Your task to perform on an android device: empty trash in the gmail app Image 0: 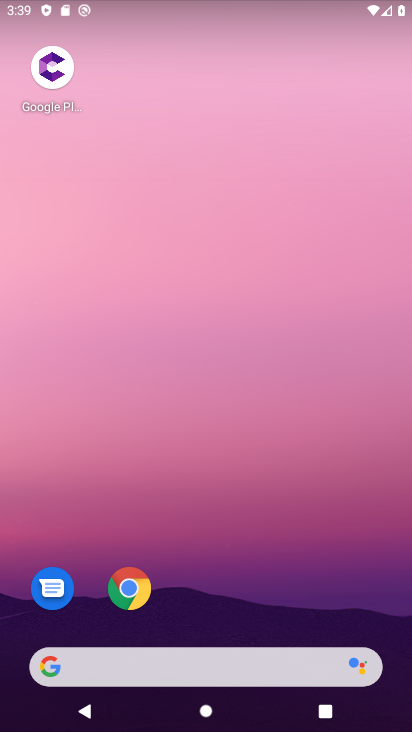
Step 0: drag from (281, 677) to (255, 150)
Your task to perform on an android device: empty trash in the gmail app Image 1: 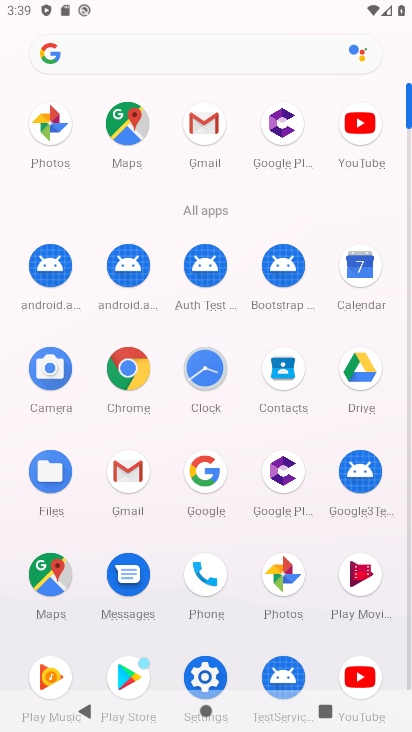
Step 1: click (205, 139)
Your task to perform on an android device: empty trash in the gmail app Image 2: 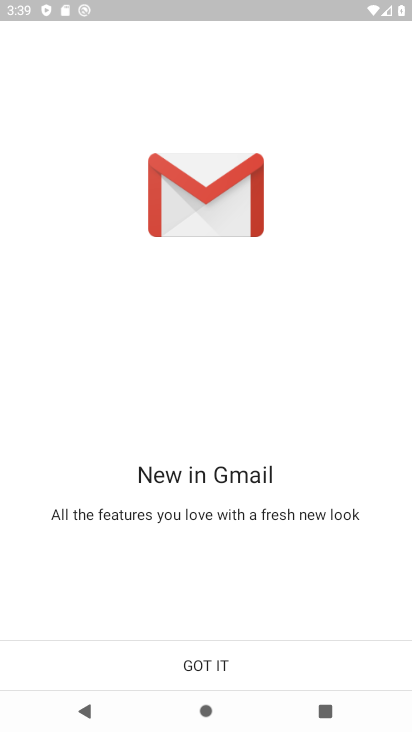
Step 2: click (220, 659)
Your task to perform on an android device: empty trash in the gmail app Image 3: 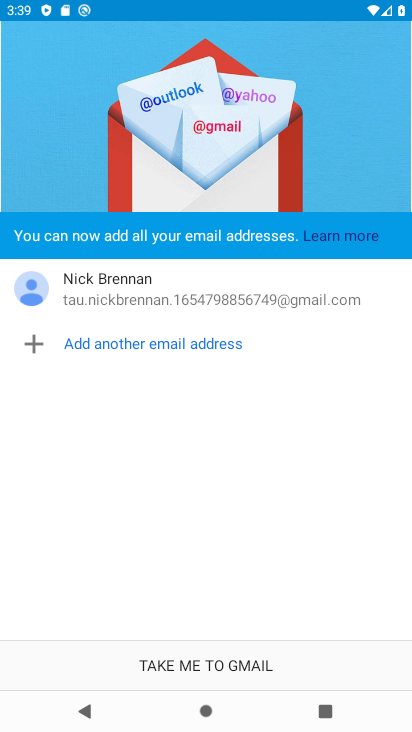
Step 3: click (194, 675)
Your task to perform on an android device: empty trash in the gmail app Image 4: 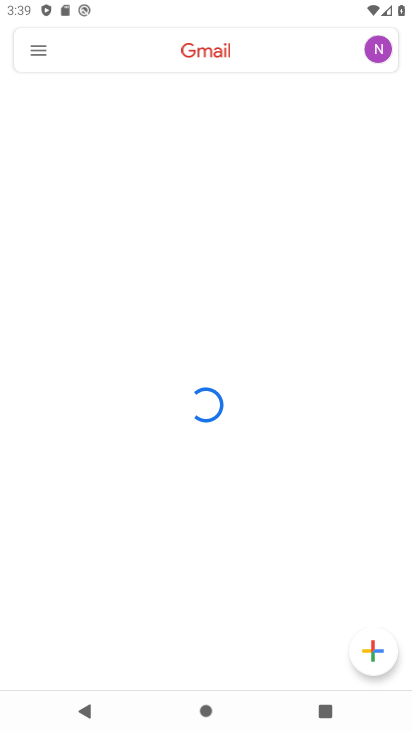
Step 4: click (46, 49)
Your task to perform on an android device: empty trash in the gmail app Image 5: 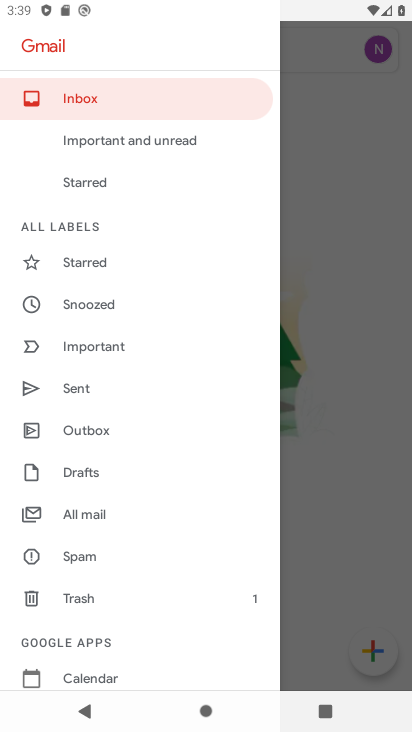
Step 5: click (105, 596)
Your task to perform on an android device: empty trash in the gmail app Image 6: 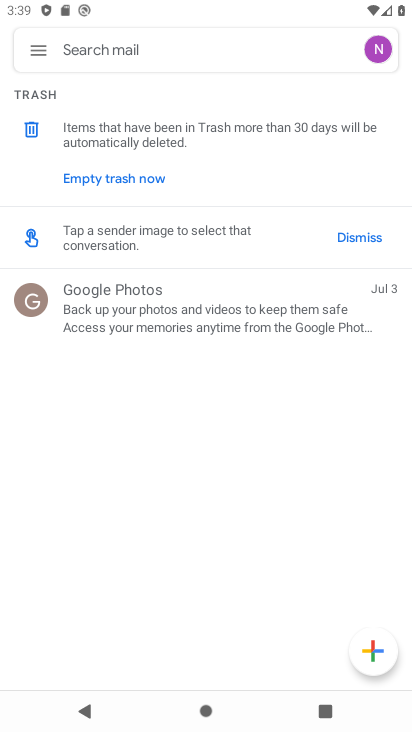
Step 6: click (102, 178)
Your task to perform on an android device: empty trash in the gmail app Image 7: 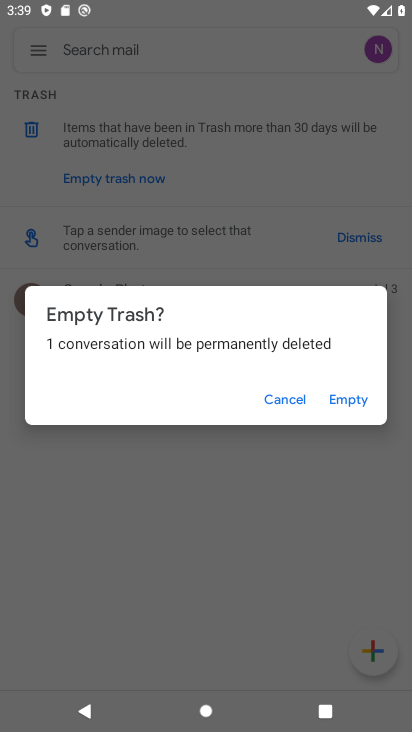
Step 7: click (331, 400)
Your task to perform on an android device: empty trash in the gmail app Image 8: 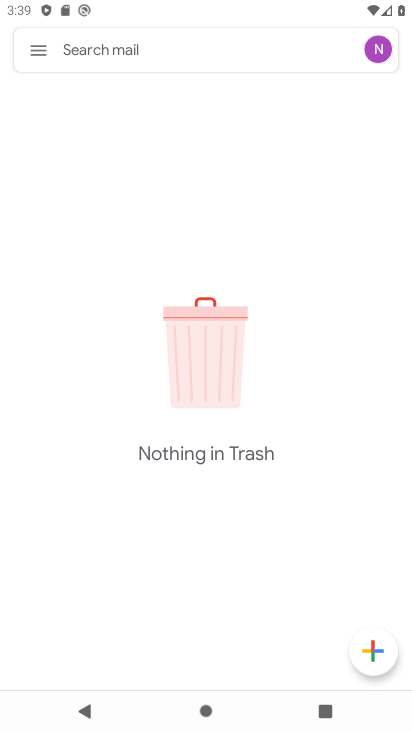
Step 8: task complete